Your task to perform on an android device: Open Chrome and go to the settings page Image 0: 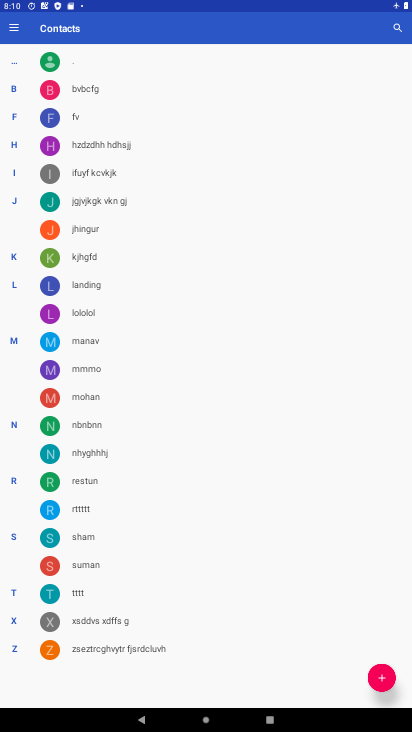
Step 0: press home button
Your task to perform on an android device: Open Chrome and go to the settings page Image 1: 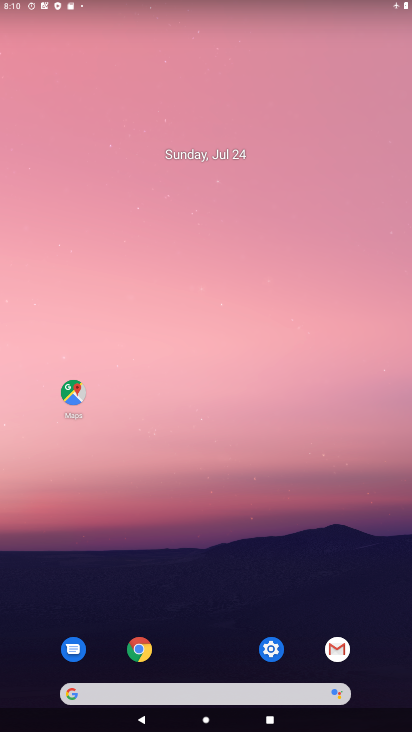
Step 1: click (148, 637)
Your task to perform on an android device: Open Chrome and go to the settings page Image 2: 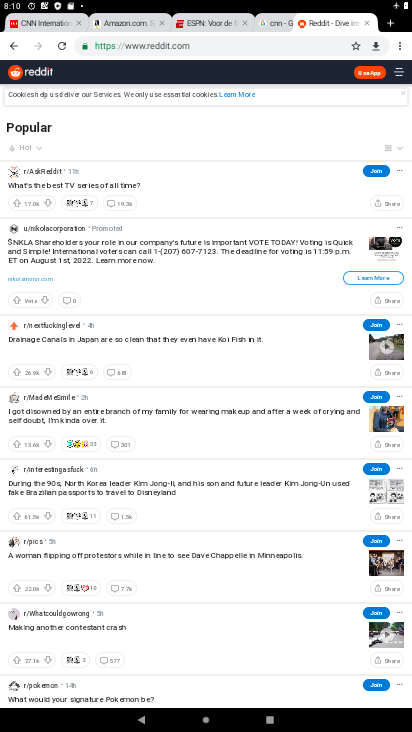
Step 2: click (402, 57)
Your task to perform on an android device: Open Chrome and go to the settings page Image 3: 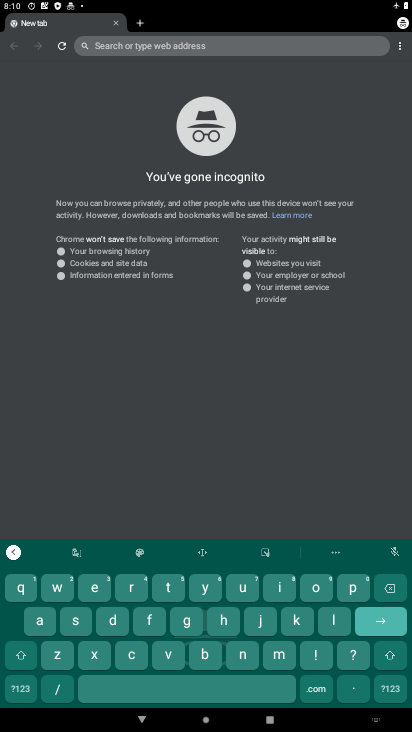
Step 3: click (121, 24)
Your task to perform on an android device: Open Chrome and go to the settings page Image 4: 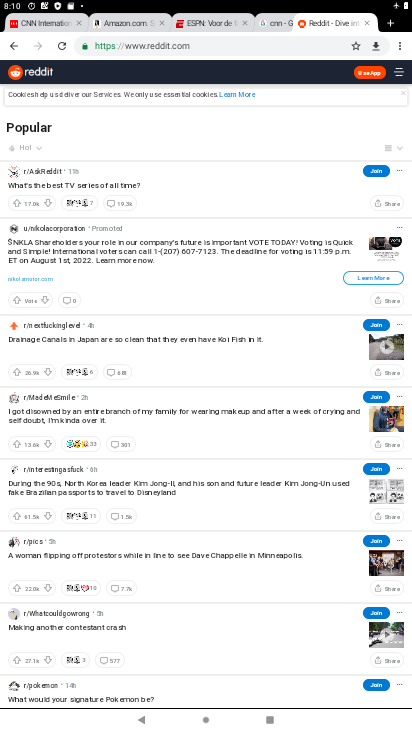
Step 4: click (399, 44)
Your task to perform on an android device: Open Chrome and go to the settings page Image 5: 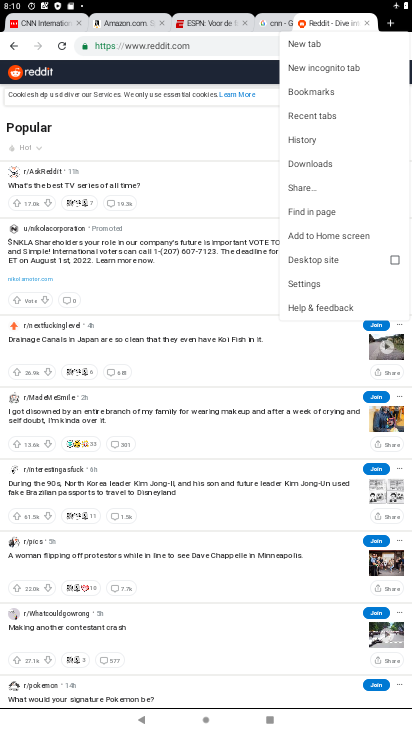
Step 5: click (298, 281)
Your task to perform on an android device: Open Chrome and go to the settings page Image 6: 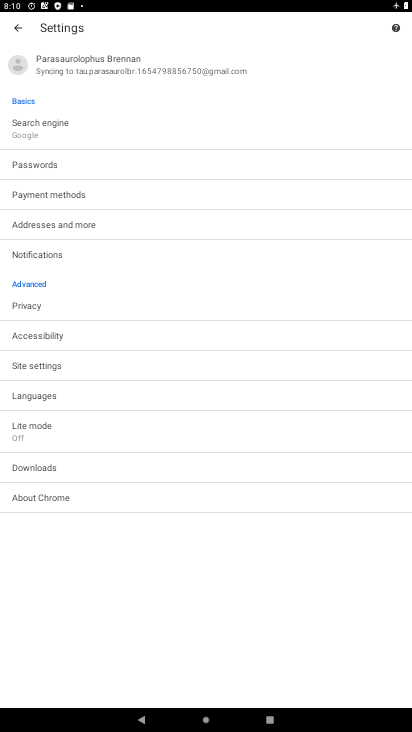
Step 6: task complete